Your task to perform on an android device: toggle translation in the chrome app Image 0: 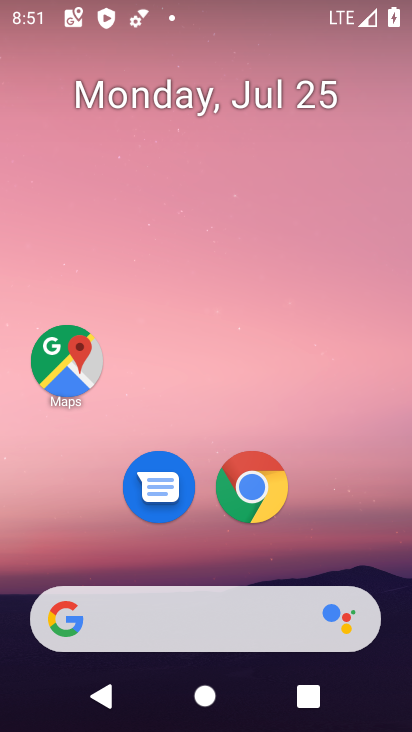
Step 0: click (250, 489)
Your task to perform on an android device: toggle translation in the chrome app Image 1: 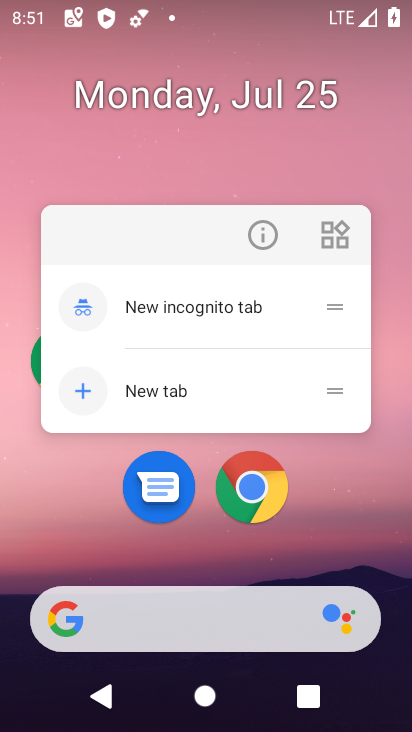
Step 1: click (271, 482)
Your task to perform on an android device: toggle translation in the chrome app Image 2: 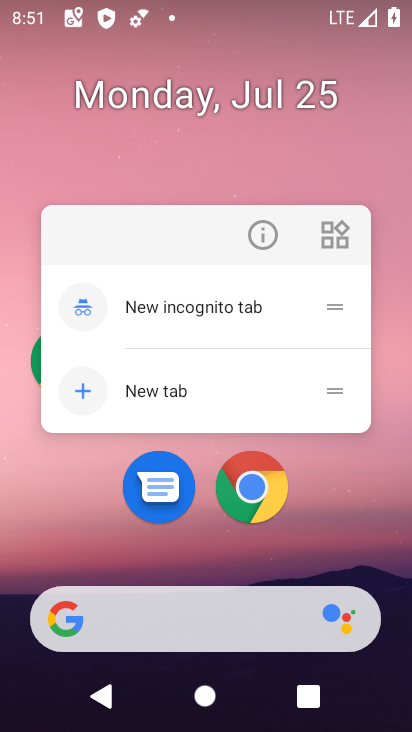
Step 2: click (259, 484)
Your task to perform on an android device: toggle translation in the chrome app Image 3: 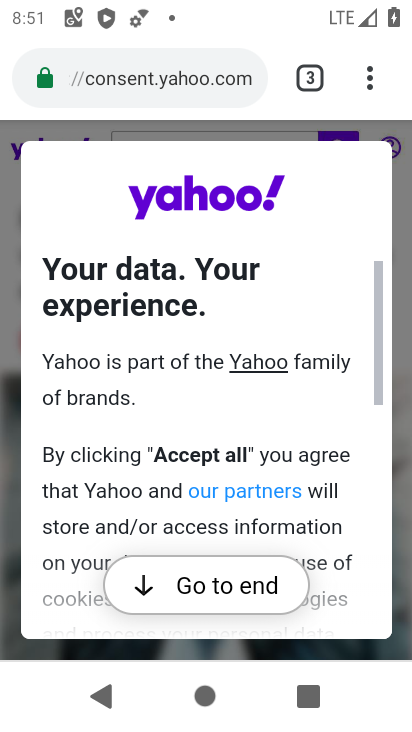
Step 3: drag from (372, 67) to (98, 535)
Your task to perform on an android device: toggle translation in the chrome app Image 4: 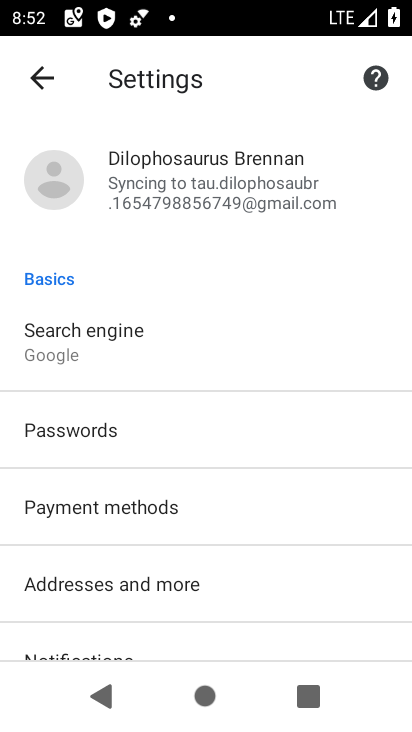
Step 4: drag from (110, 616) to (241, 167)
Your task to perform on an android device: toggle translation in the chrome app Image 5: 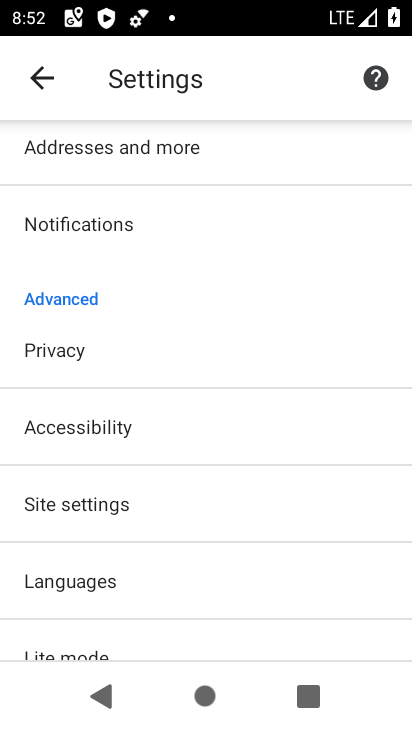
Step 5: click (87, 582)
Your task to perform on an android device: toggle translation in the chrome app Image 6: 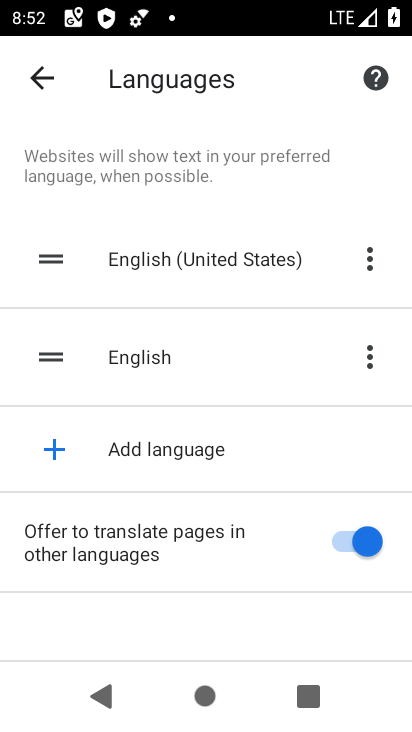
Step 6: click (359, 536)
Your task to perform on an android device: toggle translation in the chrome app Image 7: 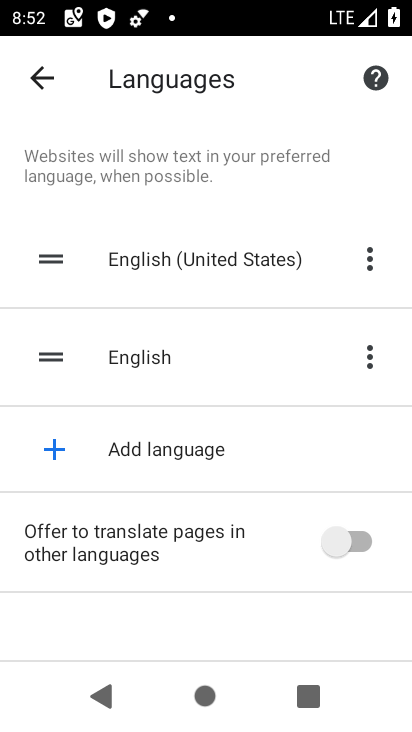
Step 7: task complete